Your task to perform on an android device: see creations saved in the google photos Image 0: 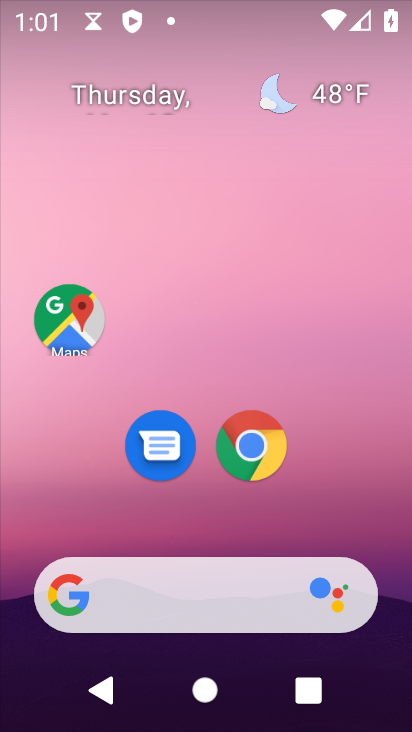
Step 0: drag from (255, 480) to (221, 17)
Your task to perform on an android device: see creations saved in the google photos Image 1: 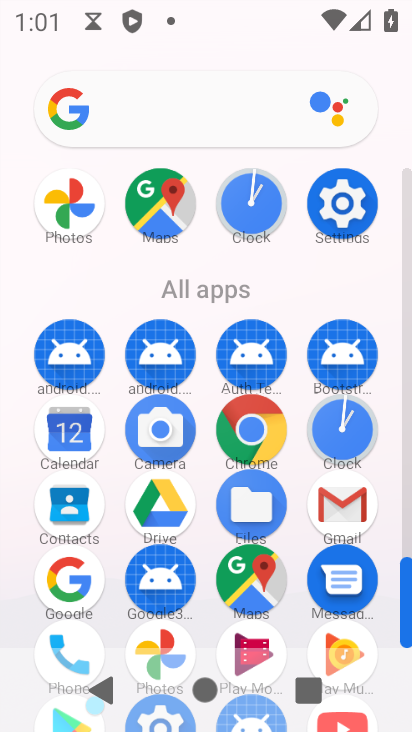
Step 1: drag from (203, 612) to (199, 354)
Your task to perform on an android device: see creations saved in the google photos Image 2: 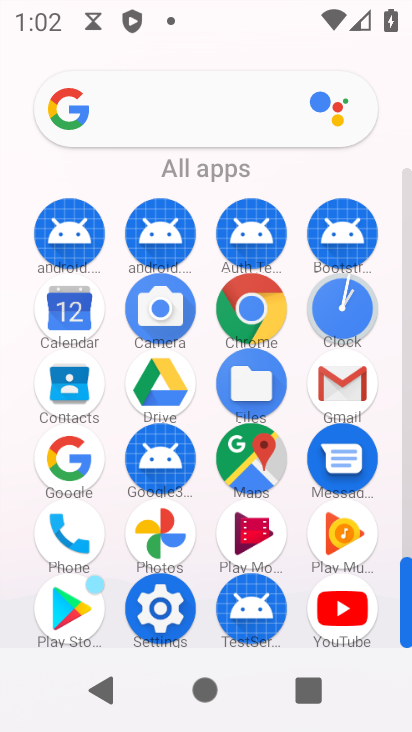
Step 2: click (168, 523)
Your task to perform on an android device: see creations saved in the google photos Image 3: 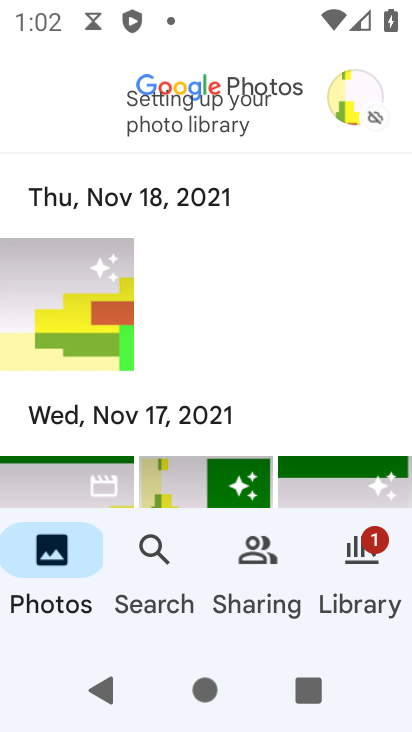
Step 3: click (145, 568)
Your task to perform on an android device: see creations saved in the google photos Image 4: 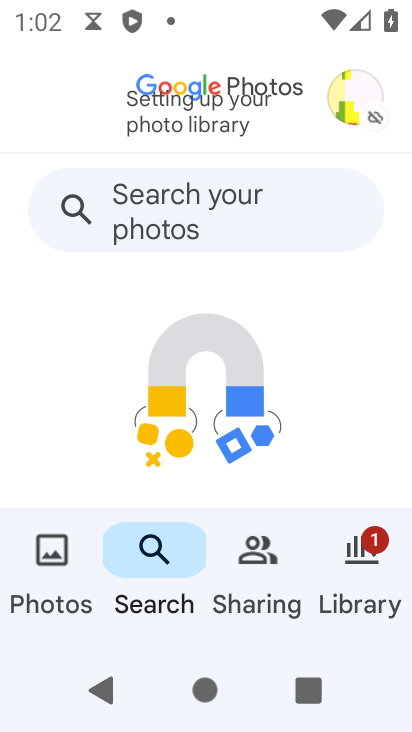
Step 4: drag from (242, 412) to (227, 129)
Your task to perform on an android device: see creations saved in the google photos Image 5: 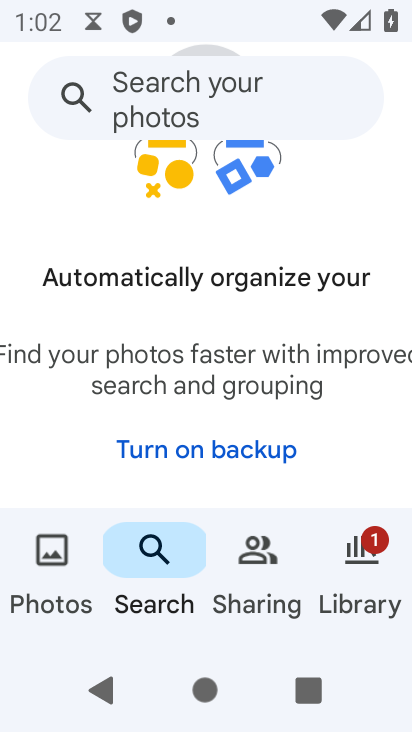
Step 5: drag from (230, 421) to (231, 139)
Your task to perform on an android device: see creations saved in the google photos Image 6: 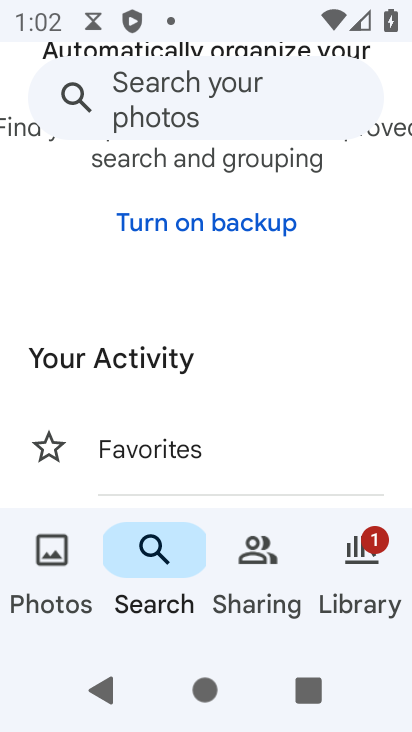
Step 6: drag from (230, 426) to (246, 175)
Your task to perform on an android device: see creations saved in the google photos Image 7: 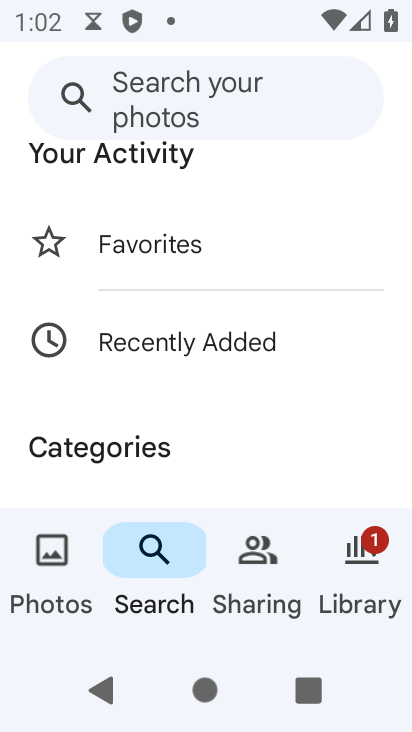
Step 7: drag from (252, 343) to (262, 140)
Your task to perform on an android device: see creations saved in the google photos Image 8: 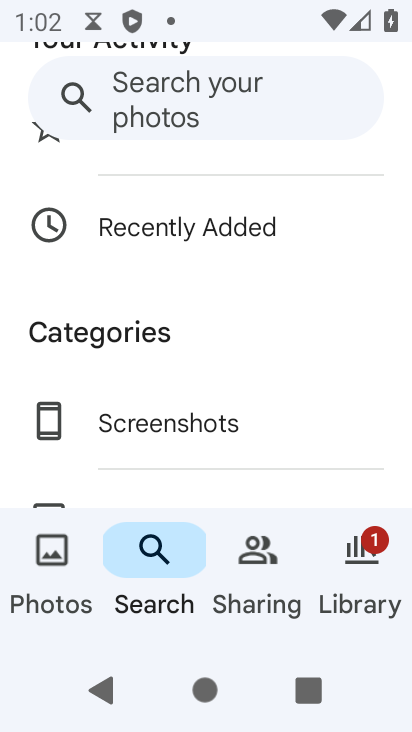
Step 8: drag from (209, 446) to (253, 101)
Your task to perform on an android device: see creations saved in the google photos Image 9: 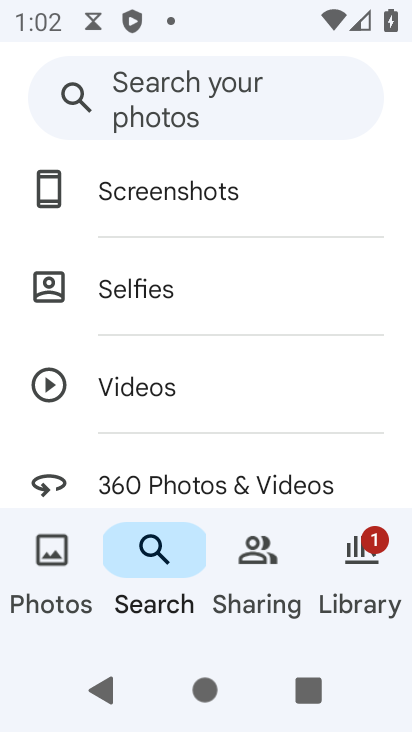
Step 9: drag from (240, 384) to (239, 150)
Your task to perform on an android device: see creations saved in the google photos Image 10: 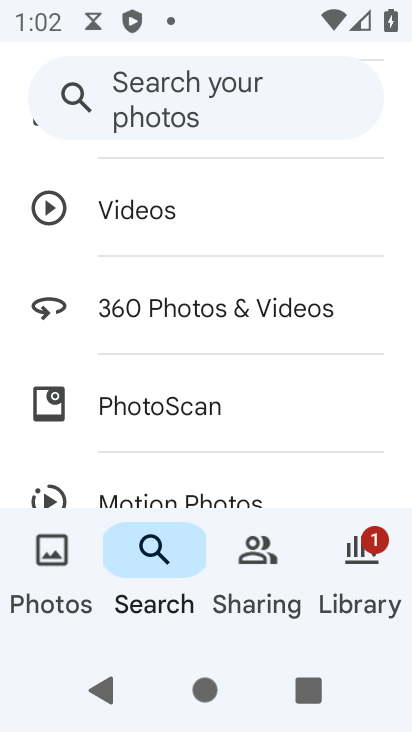
Step 10: drag from (219, 466) to (228, 245)
Your task to perform on an android device: see creations saved in the google photos Image 11: 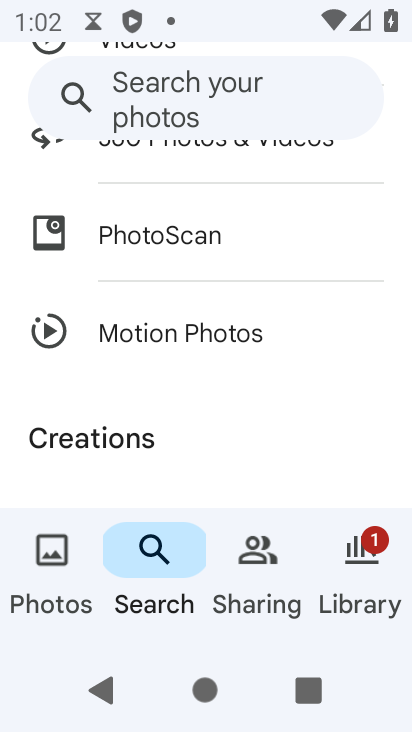
Step 11: drag from (211, 459) to (222, 191)
Your task to perform on an android device: see creations saved in the google photos Image 12: 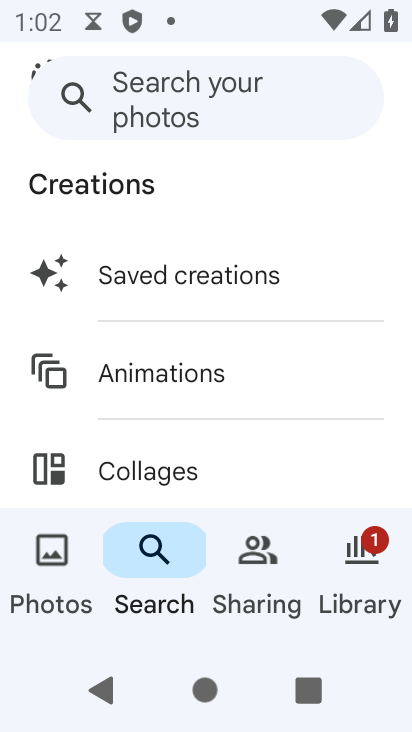
Step 12: click (157, 285)
Your task to perform on an android device: see creations saved in the google photos Image 13: 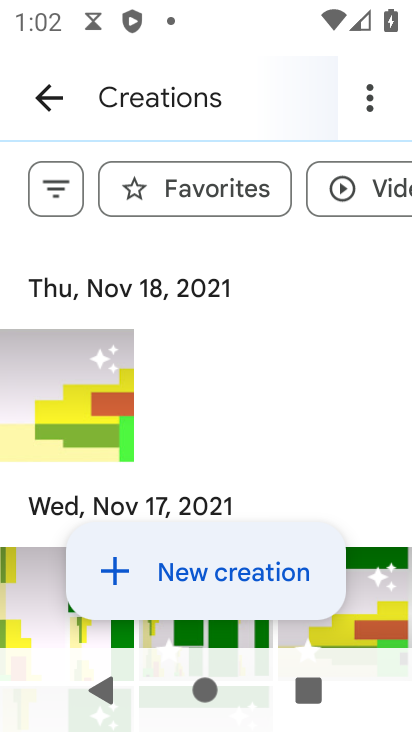
Step 13: task complete